Your task to perform on an android device: change the clock display to analog Image 0: 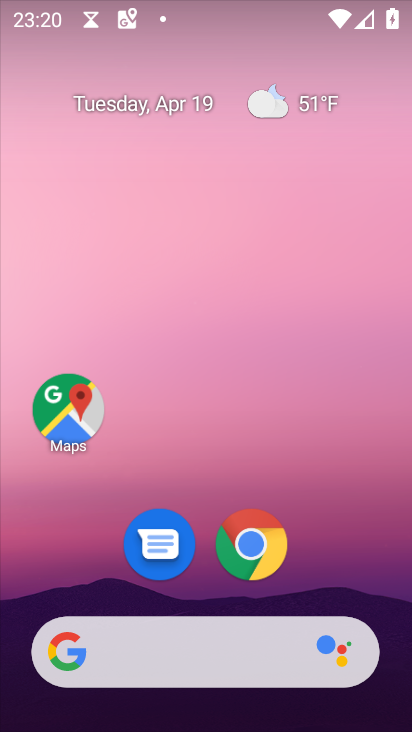
Step 0: drag from (312, 565) to (335, 58)
Your task to perform on an android device: change the clock display to analog Image 1: 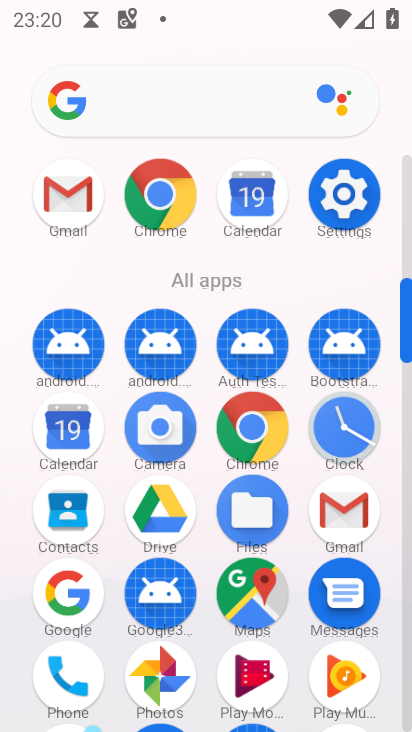
Step 1: click (349, 427)
Your task to perform on an android device: change the clock display to analog Image 2: 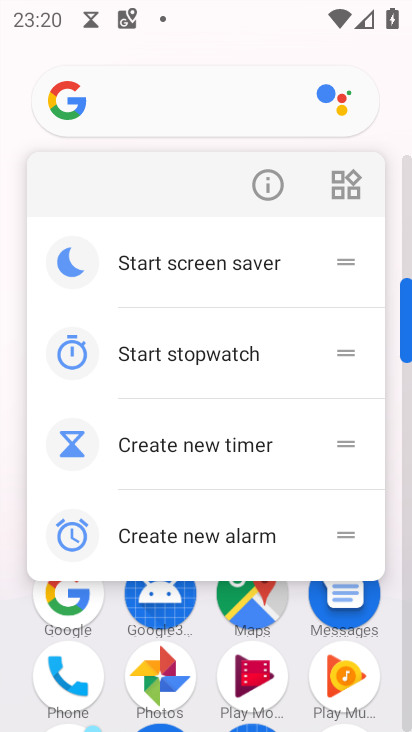
Step 2: click (391, 434)
Your task to perform on an android device: change the clock display to analog Image 3: 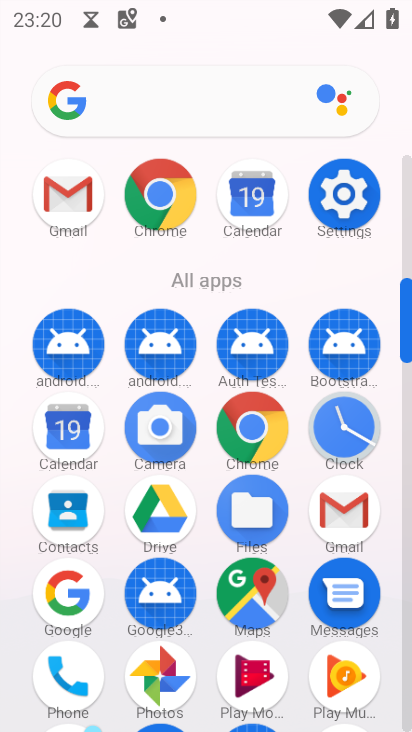
Step 3: click (360, 427)
Your task to perform on an android device: change the clock display to analog Image 4: 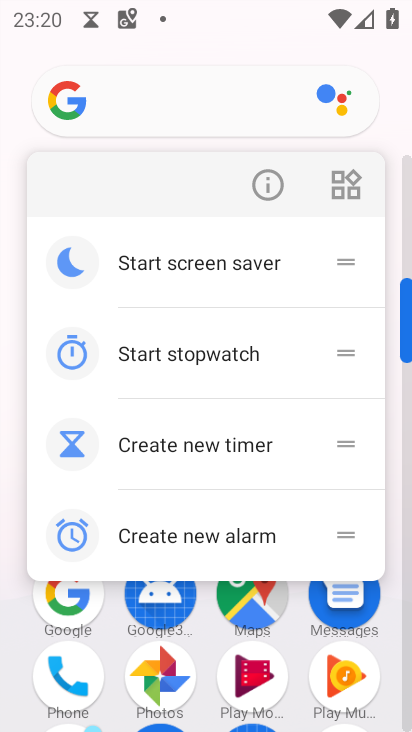
Step 4: click (394, 427)
Your task to perform on an android device: change the clock display to analog Image 5: 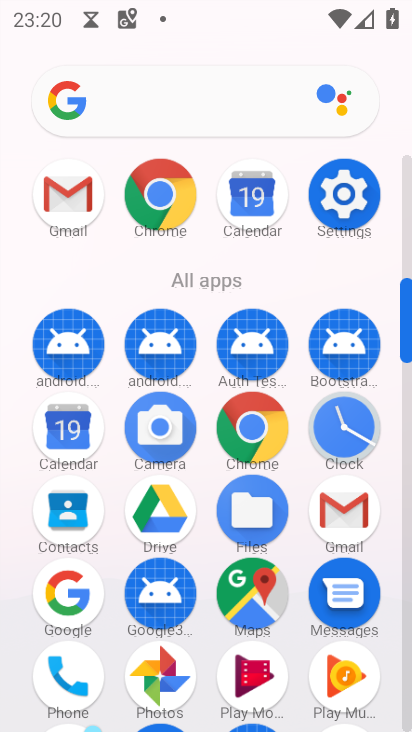
Step 5: click (343, 440)
Your task to perform on an android device: change the clock display to analog Image 6: 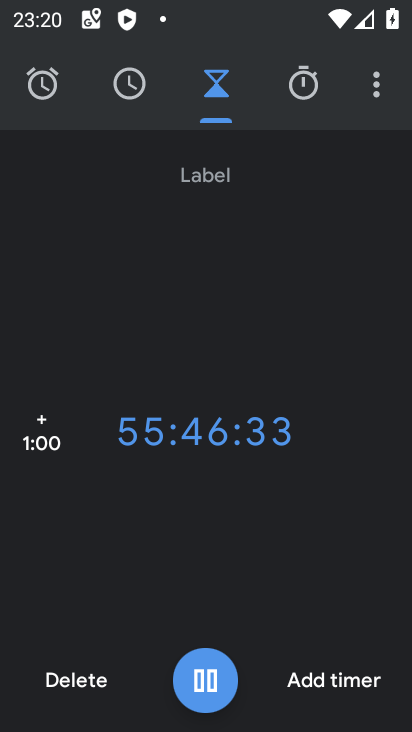
Step 6: click (366, 101)
Your task to perform on an android device: change the clock display to analog Image 7: 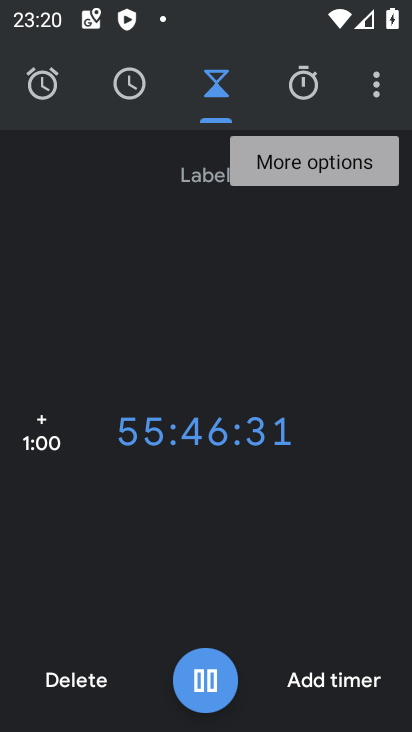
Step 7: click (371, 96)
Your task to perform on an android device: change the clock display to analog Image 8: 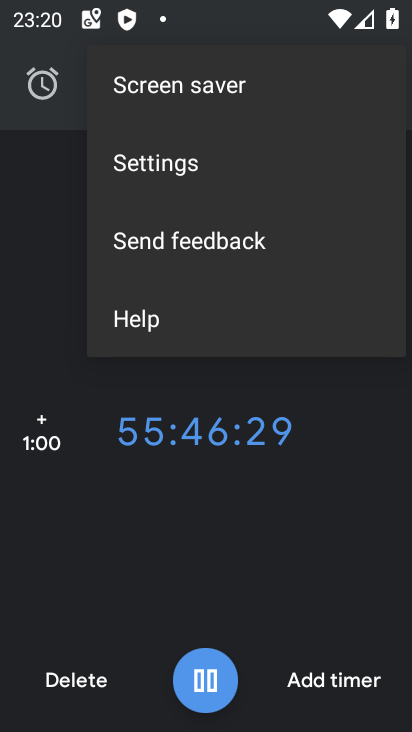
Step 8: click (289, 169)
Your task to perform on an android device: change the clock display to analog Image 9: 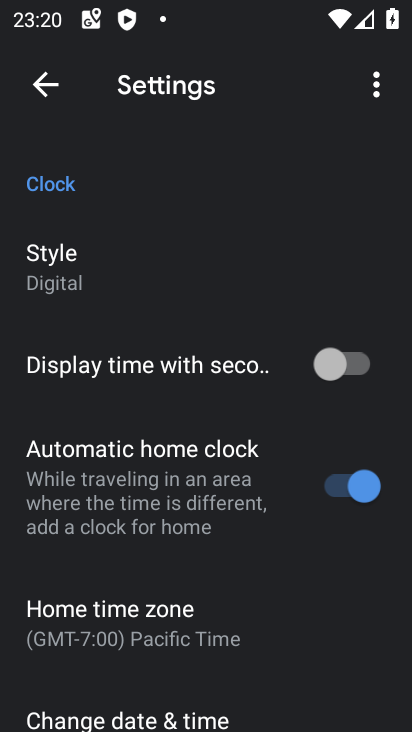
Step 9: click (180, 278)
Your task to perform on an android device: change the clock display to analog Image 10: 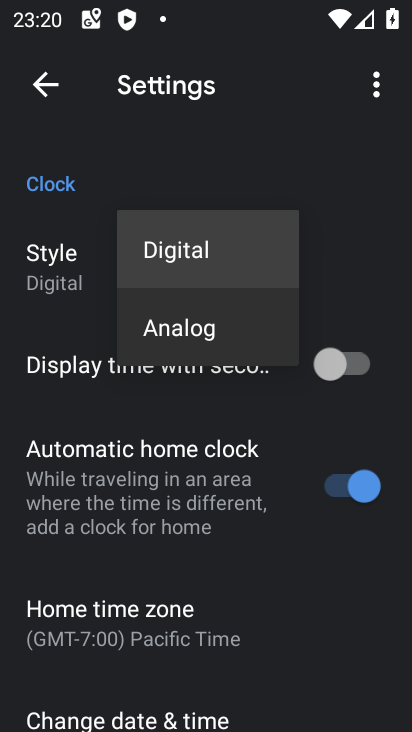
Step 10: click (189, 328)
Your task to perform on an android device: change the clock display to analog Image 11: 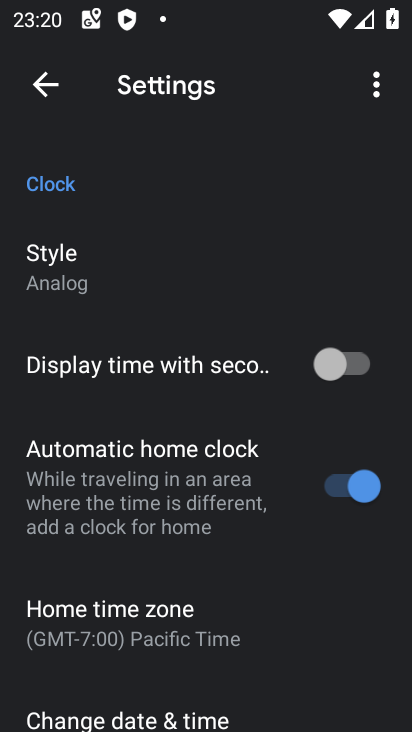
Step 11: task complete